Your task to perform on an android device: toggle wifi Image 0: 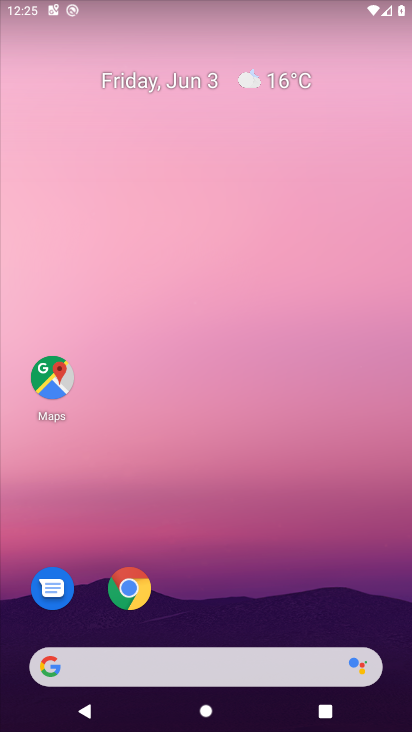
Step 0: drag from (243, 17) to (273, 82)
Your task to perform on an android device: toggle wifi Image 1: 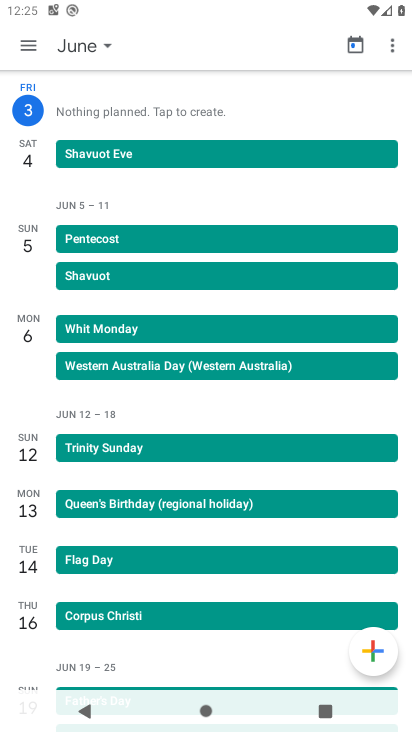
Step 1: press home button
Your task to perform on an android device: toggle wifi Image 2: 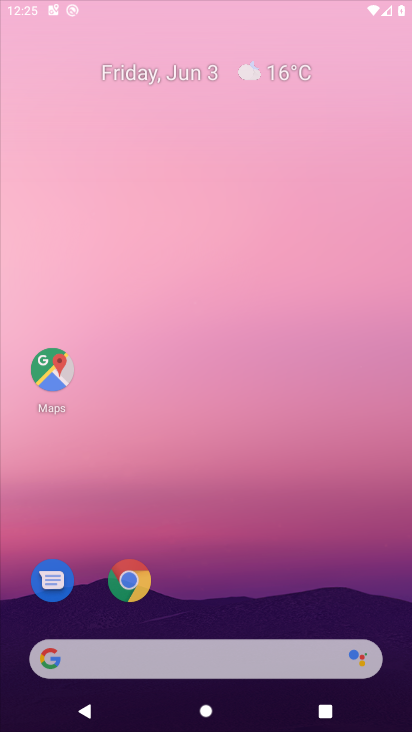
Step 2: drag from (217, 641) to (313, 5)
Your task to perform on an android device: toggle wifi Image 3: 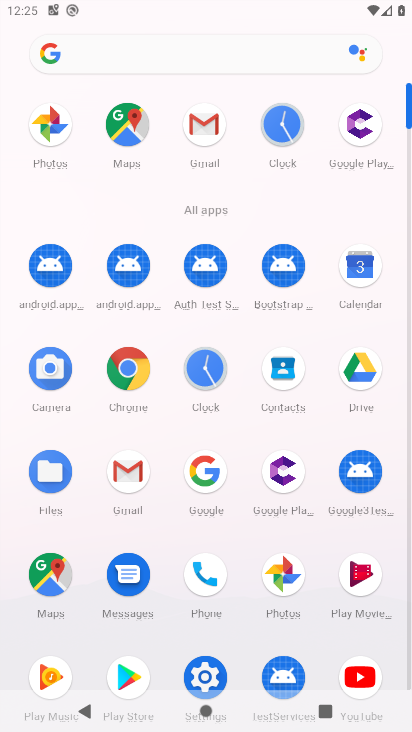
Step 3: click (201, 676)
Your task to perform on an android device: toggle wifi Image 4: 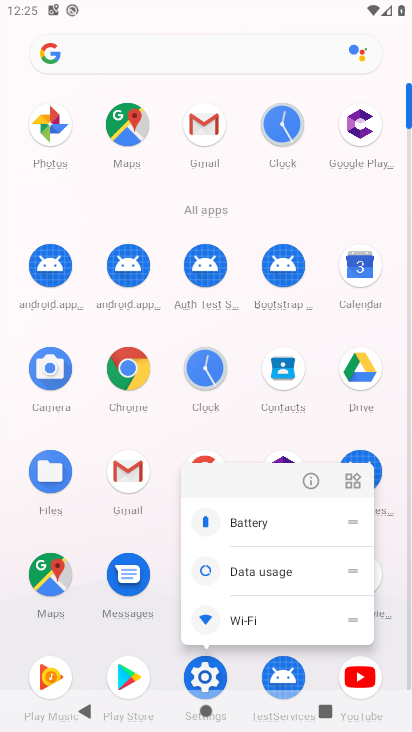
Step 4: click (310, 483)
Your task to perform on an android device: toggle wifi Image 5: 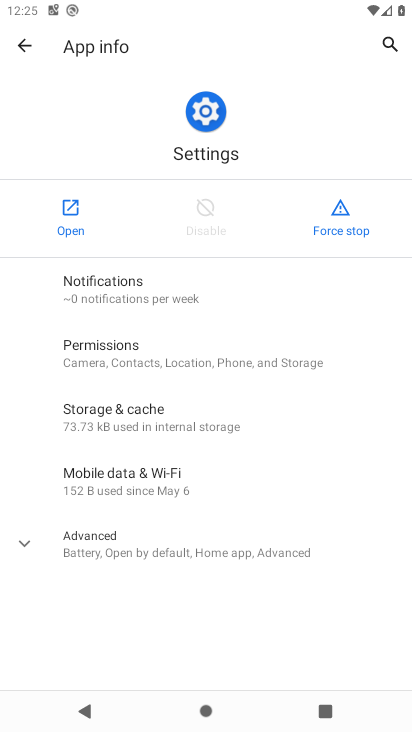
Step 5: click (56, 225)
Your task to perform on an android device: toggle wifi Image 6: 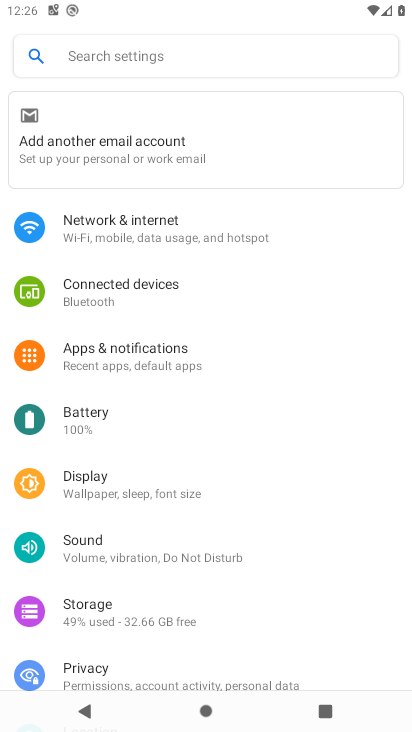
Step 6: click (146, 242)
Your task to perform on an android device: toggle wifi Image 7: 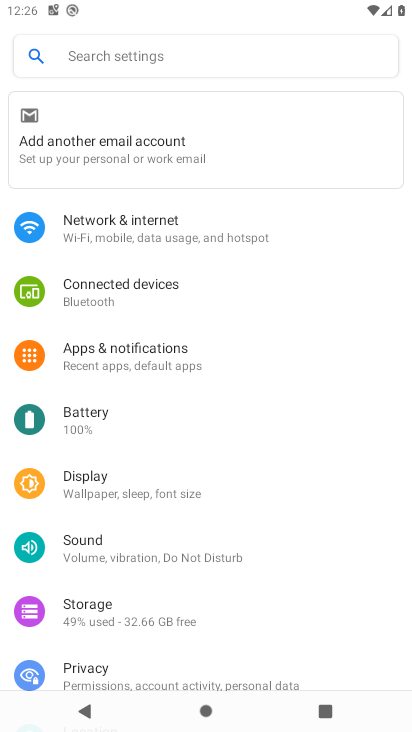
Step 7: click (146, 242)
Your task to perform on an android device: toggle wifi Image 8: 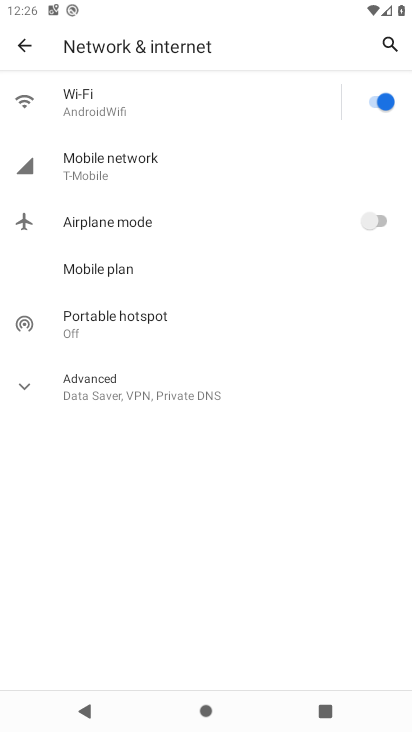
Step 8: click (152, 116)
Your task to perform on an android device: toggle wifi Image 9: 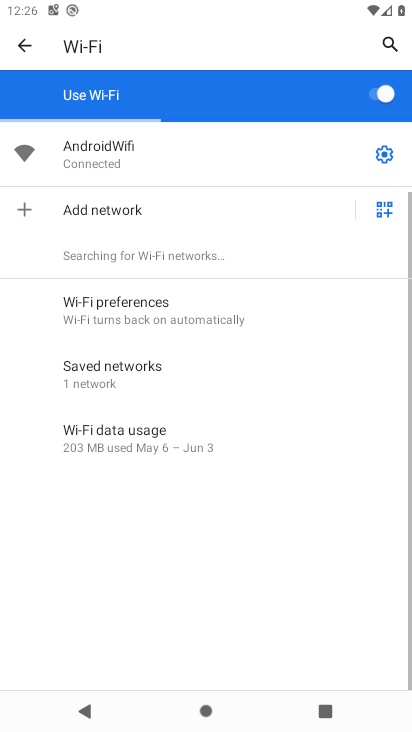
Step 9: drag from (290, 563) to (351, 89)
Your task to perform on an android device: toggle wifi Image 10: 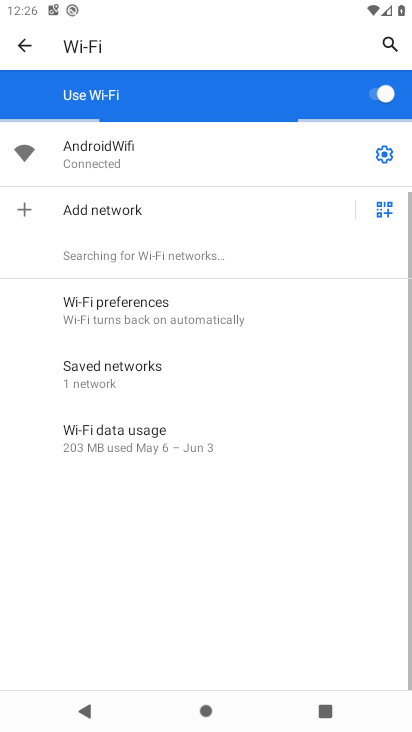
Step 10: drag from (232, 662) to (236, 212)
Your task to perform on an android device: toggle wifi Image 11: 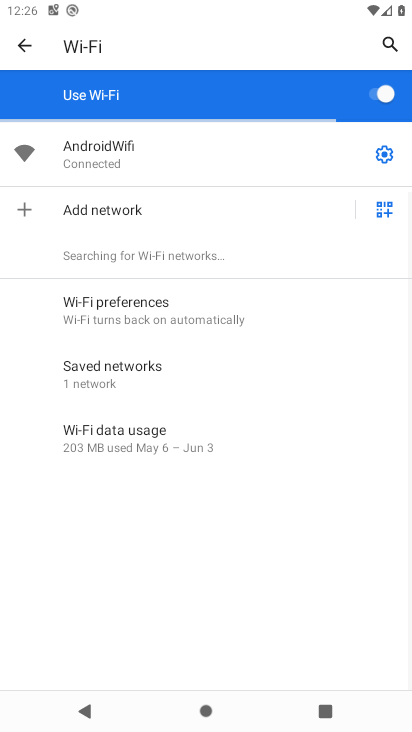
Step 11: click (387, 95)
Your task to perform on an android device: toggle wifi Image 12: 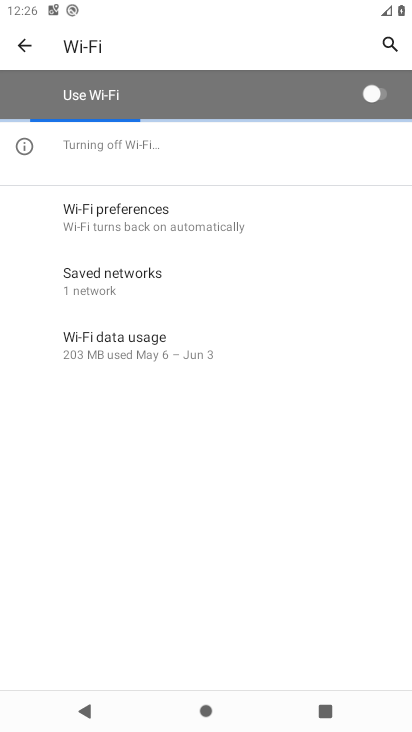
Step 12: task complete